Your task to perform on an android device: Open display settings Image 0: 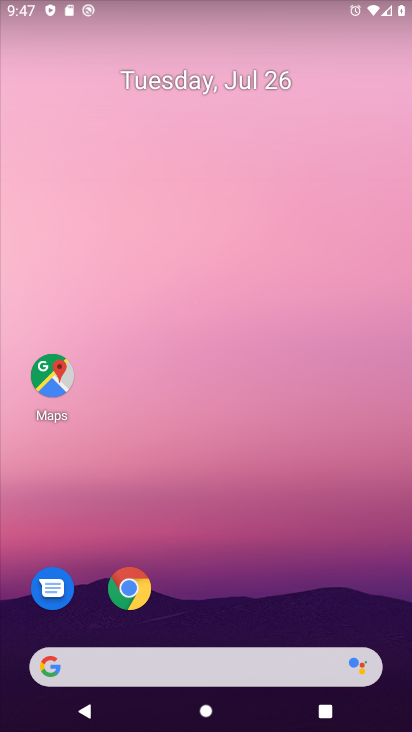
Step 0: drag from (285, 615) to (309, 57)
Your task to perform on an android device: Open display settings Image 1: 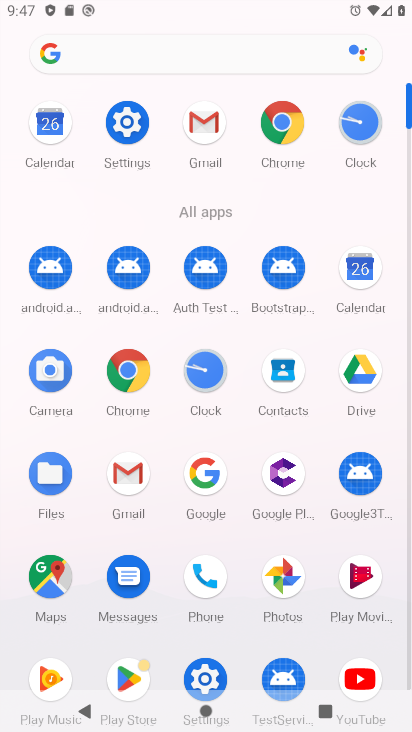
Step 1: click (141, 115)
Your task to perform on an android device: Open display settings Image 2: 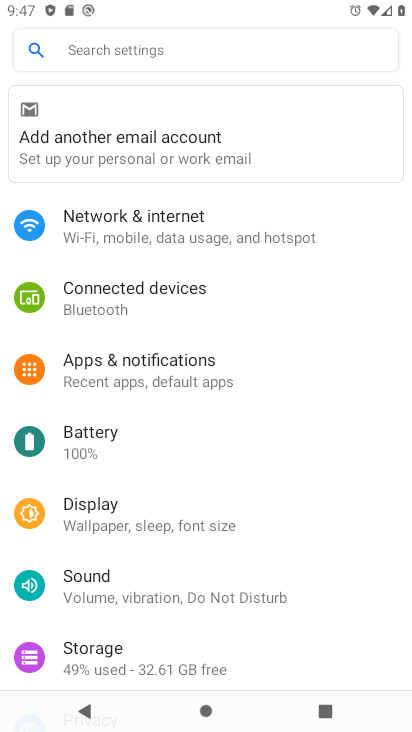
Step 2: click (115, 529)
Your task to perform on an android device: Open display settings Image 3: 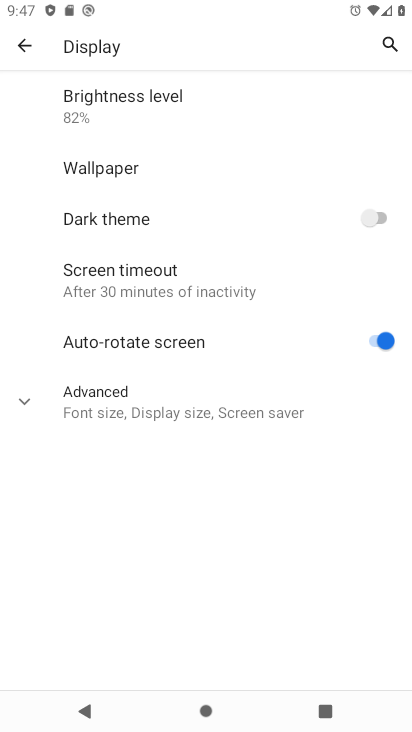
Step 3: task complete